Your task to perform on an android device: choose inbox layout in the gmail app Image 0: 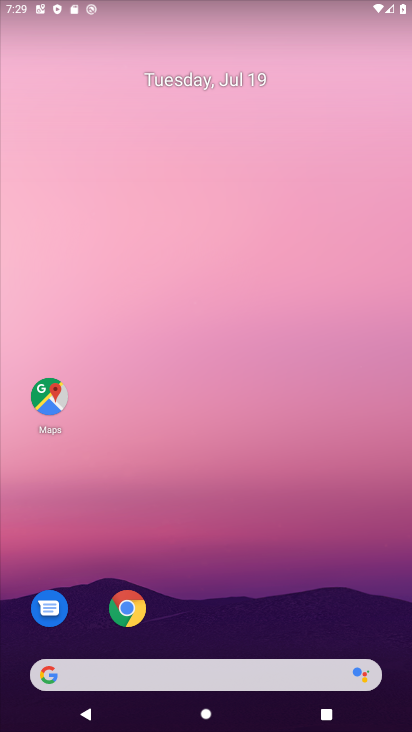
Step 0: drag from (219, 670) to (216, 189)
Your task to perform on an android device: choose inbox layout in the gmail app Image 1: 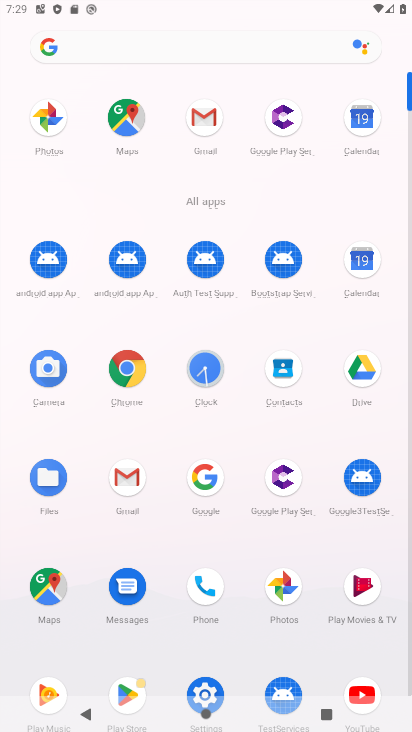
Step 1: click (206, 121)
Your task to perform on an android device: choose inbox layout in the gmail app Image 2: 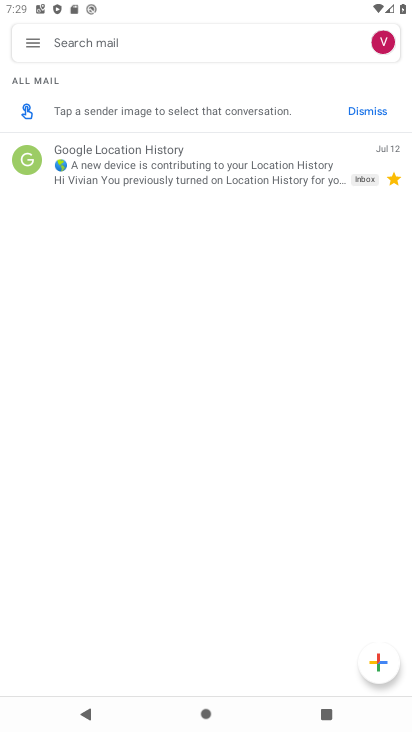
Step 2: click (33, 41)
Your task to perform on an android device: choose inbox layout in the gmail app Image 3: 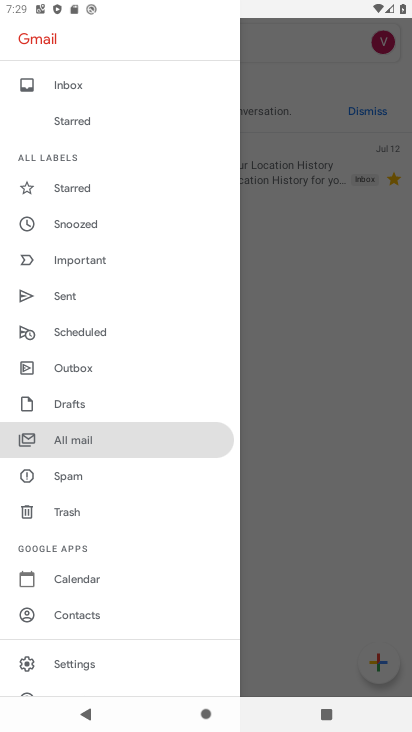
Step 3: click (81, 669)
Your task to perform on an android device: choose inbox layout in the gmail app Image 4: 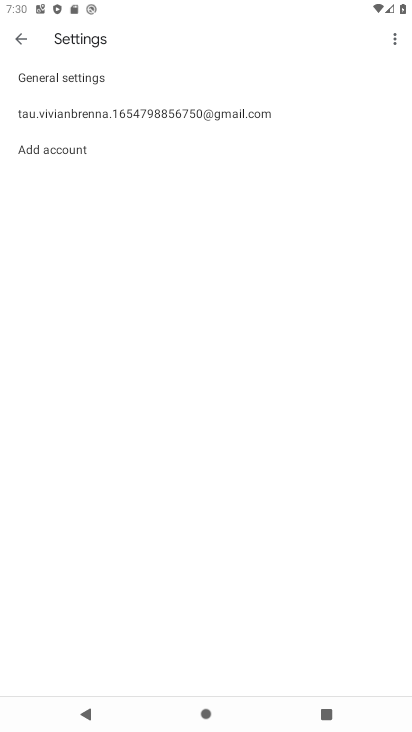
Step 4: click (225, 111)
Your task to perform on an android device: choose inbox layout in the gmail app Image 5: 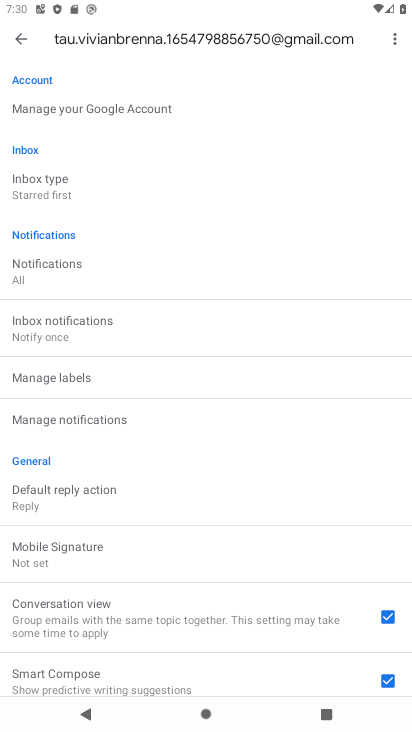
Step 5: click (51, 189)
Your task to perform on an android device: choose inbox layout in the gmail app Image 6: 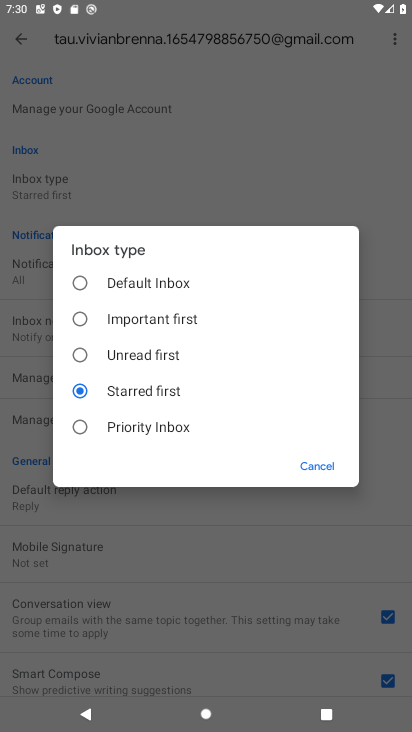
Step 6: click (82, 425)
Your task to perform on an android device: choose inbox layout in the gmail app Image 7: 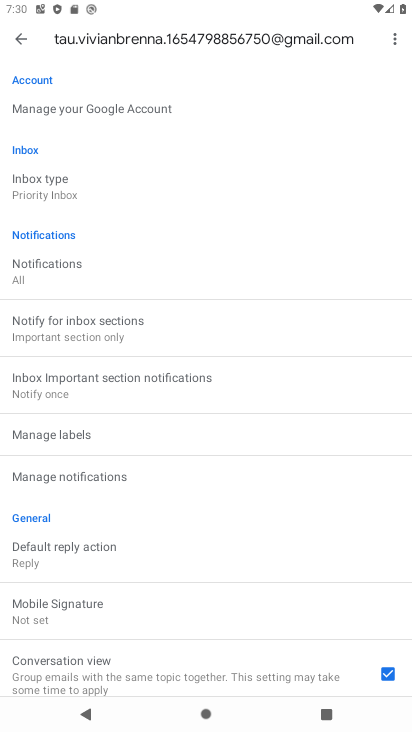
Step 7: task complete